Your task to perform on an android device: Open calendar and show me the second week of next month Image 0: 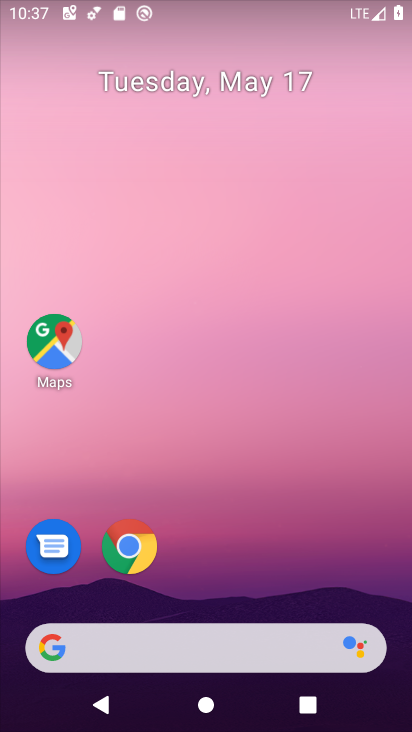
Step 0: drag from (219, 589) to (251, 76)
Your task to perform on an android device: Open calendar and show me the second week of next month Image 1: 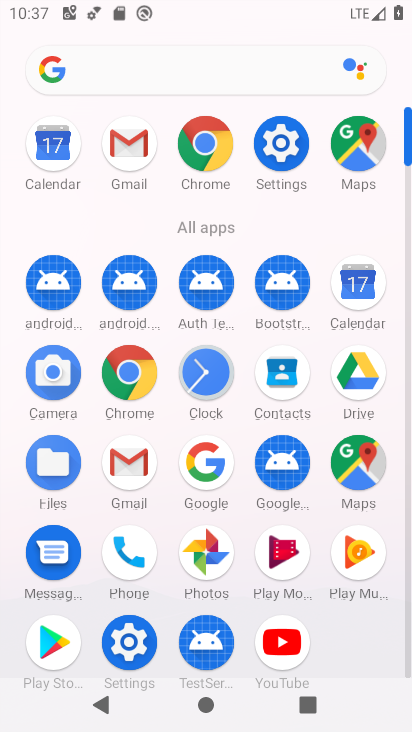
Step 1: click (365, 298)
Your task to perform on an android device: Open calendar and show me the second week of next month Image 2: 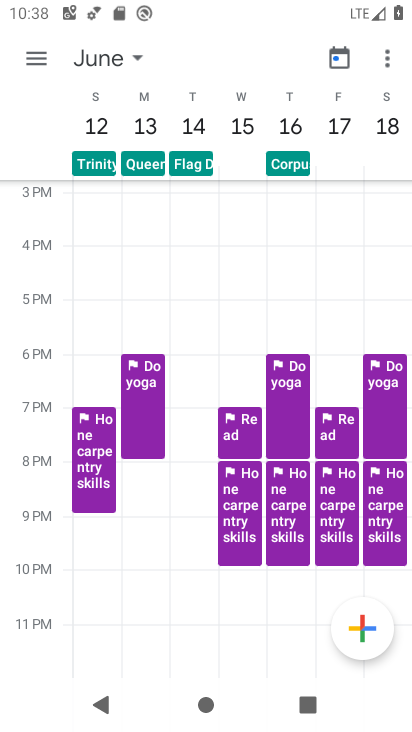
Step 2: task complete